Your task to perform on an android device: set the timer Image 0: 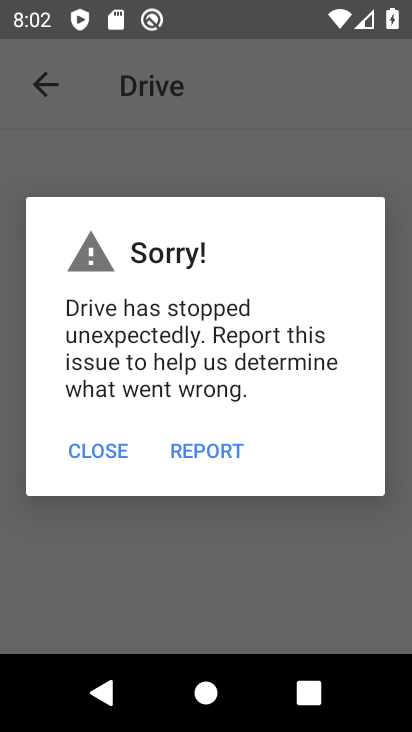
Step 0: press home button
Your task to perform on an android device: set the timer Image 1: 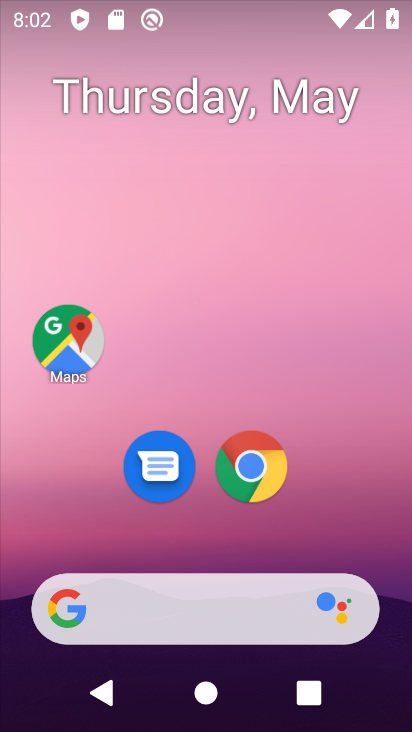
Step 1: drag from (243, 512) to (194, 55)
Your task to perform on an android device: set the timer Image 2: 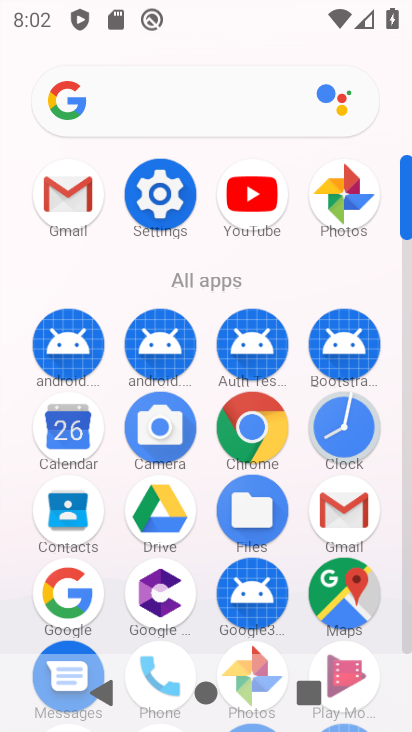
Step 2: click (343, 426)
Your task to perform on an android device: set the timer Image 3: 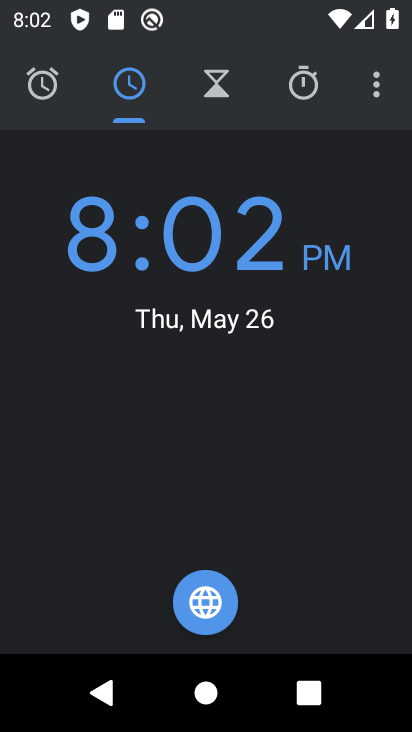
Step 3: click (217, 100)
Your task to perform on an android device: set the timer Image 4: 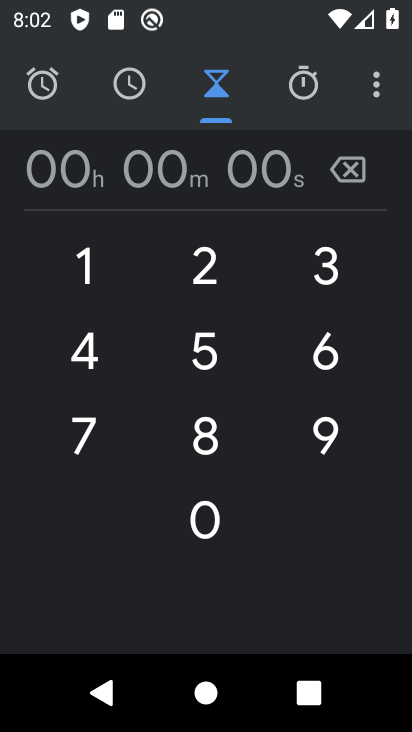
Step 4: click (191, 264)
Your task to perform on an android device: set the timer Image 5: 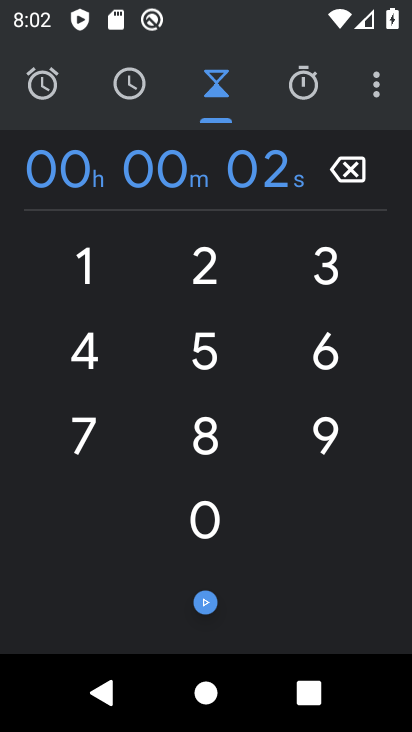
Step 5: click (219, 353)
Your task to perform on an android device: set the timer Image 6: 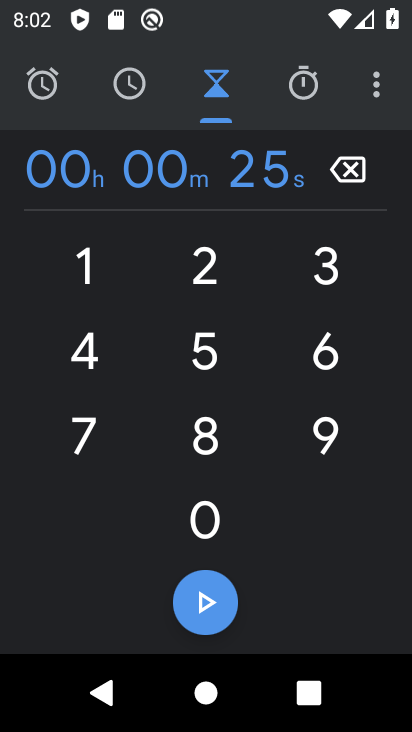
Step 6: click (180, 603)
Your task to perform on an android device: set the timer Image 7: 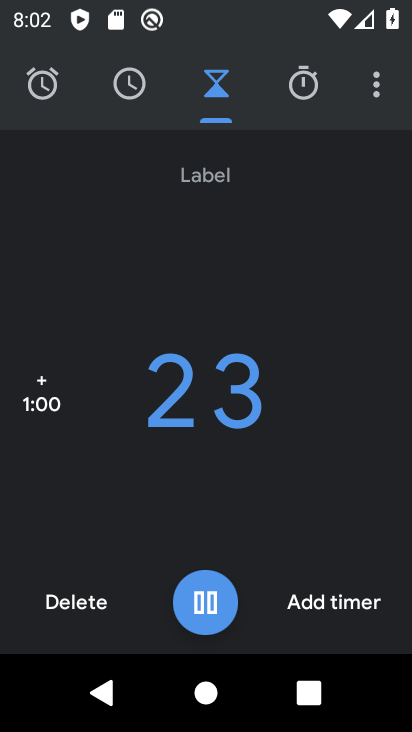
Step 7: task complete